Your task to perform on an android device: Open the map Image 0: 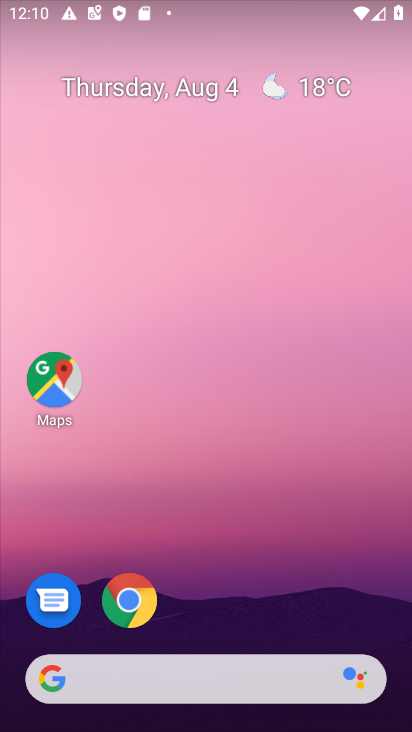
Step 0: click (48, 376)
Your task to perform on an android device: Open the map Image 1: 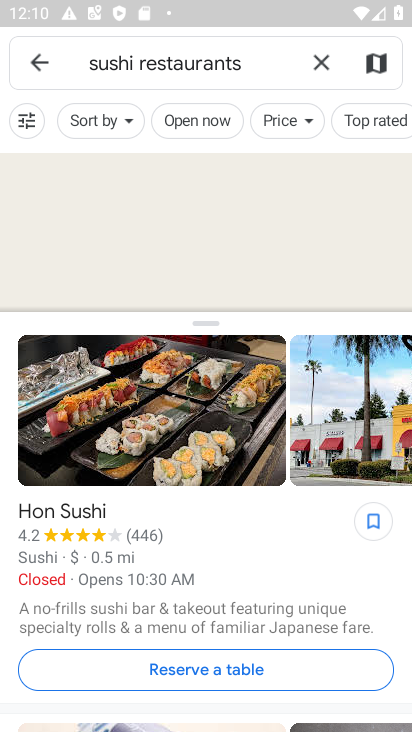
Step 1: click (42, 62)
Your task to perform on an android device: Open the map Image 2: 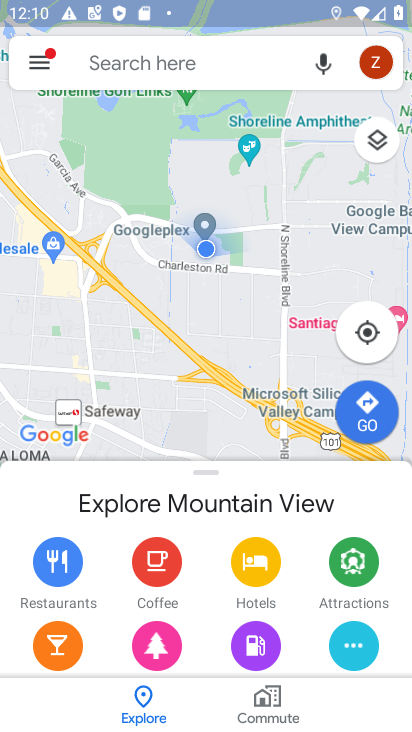
Step 2: task complete